Your task to perform on an android device: turn off notifications in google photos Image 0: 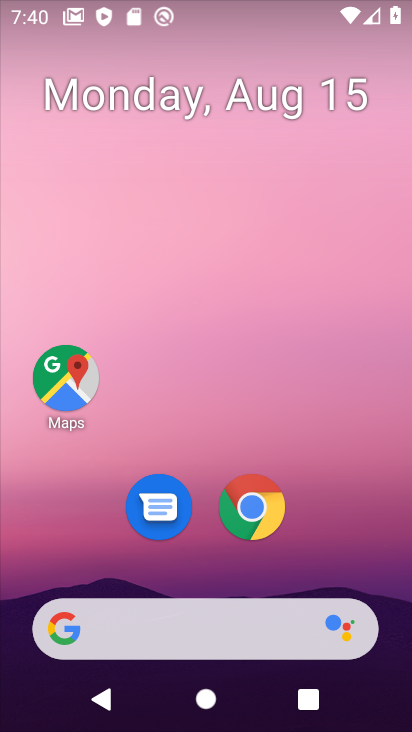
Step 0: drag from (273, 573) to (273, 94)
Your task to perform on an android device: turn off notifications in google photos Image 1: 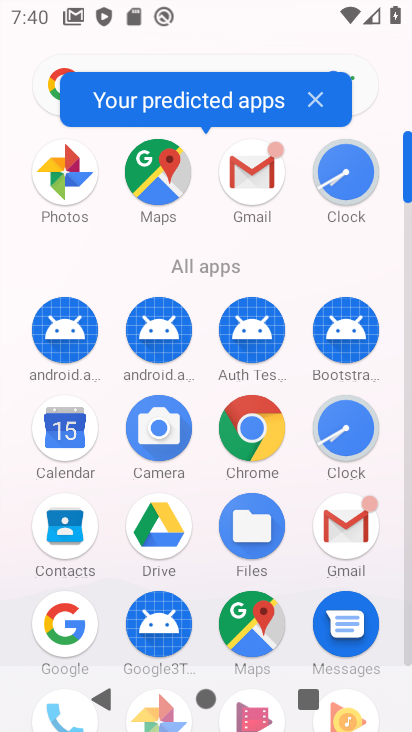
Step 1: click (236, 416)
Your task to perform on an android device: turn off notifications in google photos Image 2: 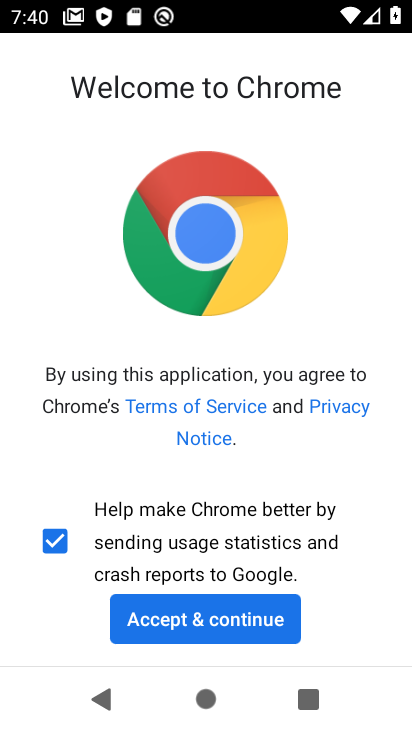
Step 2: click (228, 620)
Your task to perform on an android device: turn off notifications in google photos Image 3: 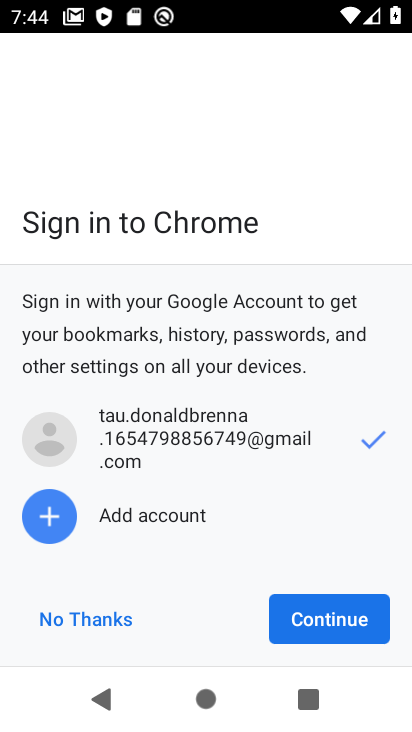
Step 3: task complete